Your task to perform on an android device: turn vacation reply on in the gmail app Image 0: 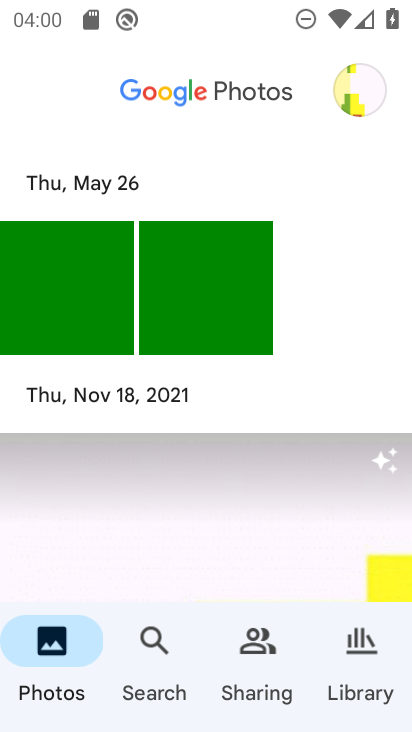
Step 0: press home button
Your task to perform on an android device: turn vacation reply on in the gmail app Image 1: 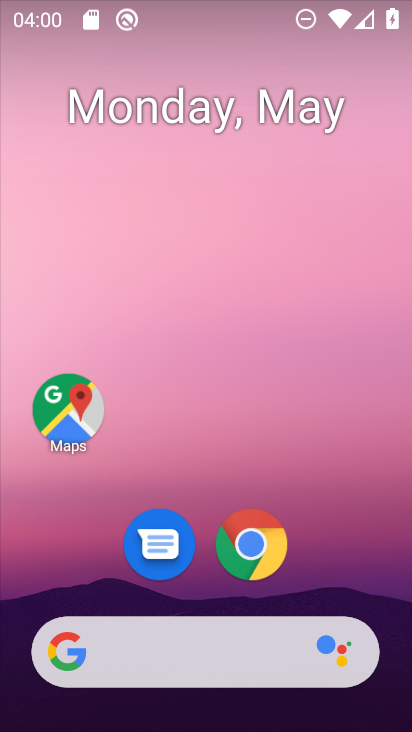
Step 1: drag from (355, 545) to (368, 234)
Your task to perform on an android device: turn vacation reply on in the gmail app Image 2: 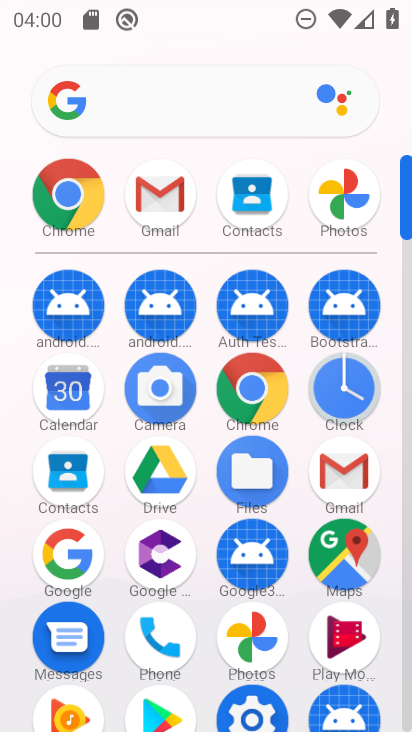
Step 2: click (349, 486)
Your task to perform on an android device: turn vacation reply on in the gmail app Image 3: 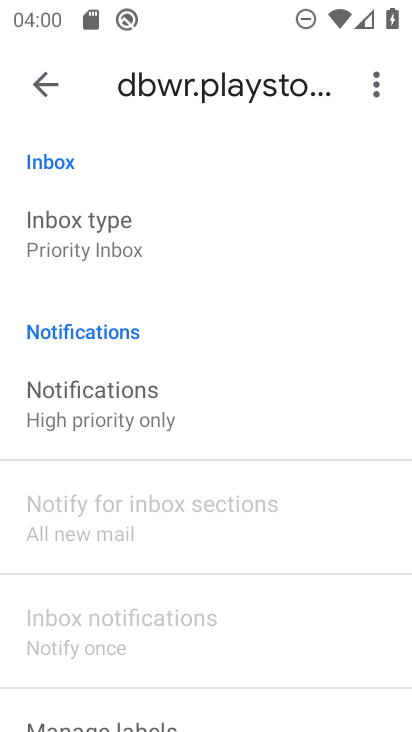
Step 3: drag from (322, 558) to (335, 441)
Your task to perform on an android device: turn vacation reply on in the gmail app Image 4: 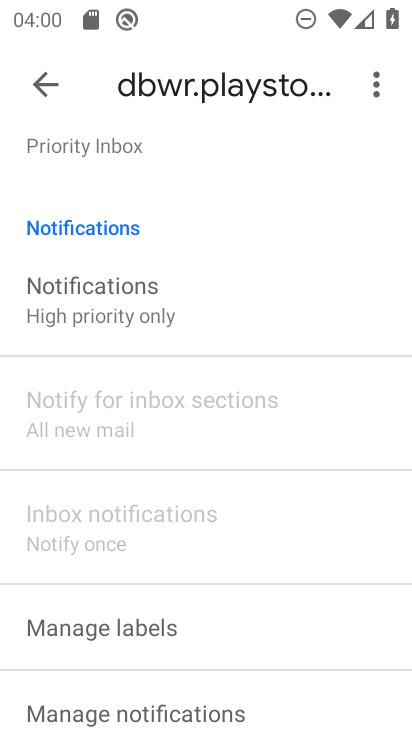
Step 4: drag from (328, 592) to (334, 452)
Your task to perform on an android device: turn vacation reply on in the gmail app Image 5: 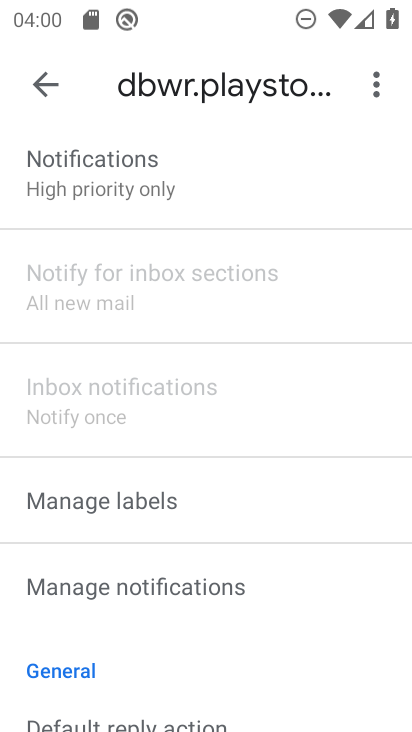
Step 5: drag from (345, 640) to (358, 456)
Your task to perform on an android device: turn vacation reply on in the gmail app Image 6: 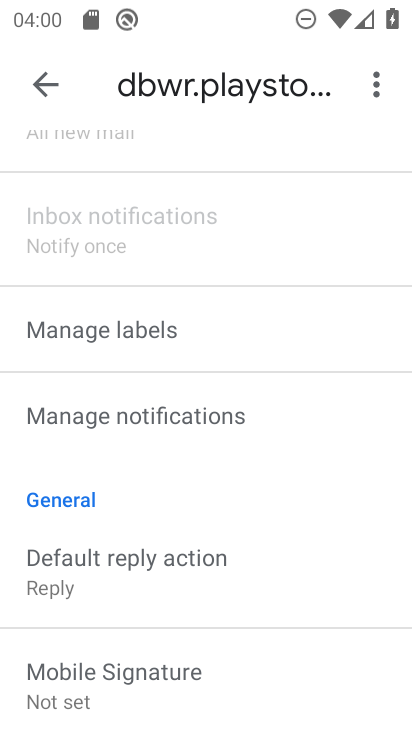
Step 6: drag from (329, 637) to (331, 482)
Your task to perform on an android device: turn vacation reply on in the gmail app Image 7: 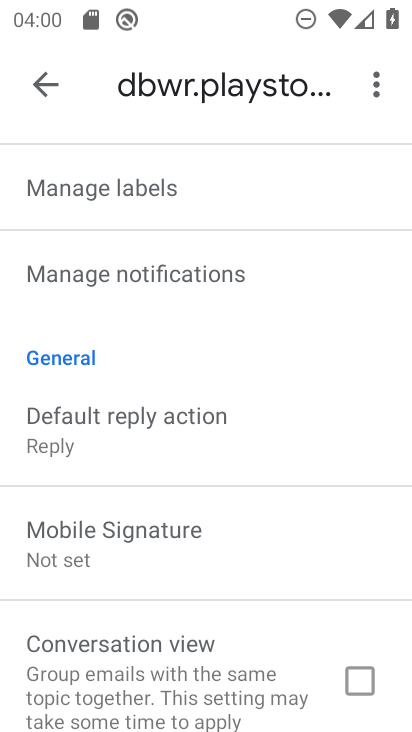
Step 7: drag from (291, 638) to (305, 493)
Your task to perform on an android device: turn vacation reply on in the gmail app Image 8: 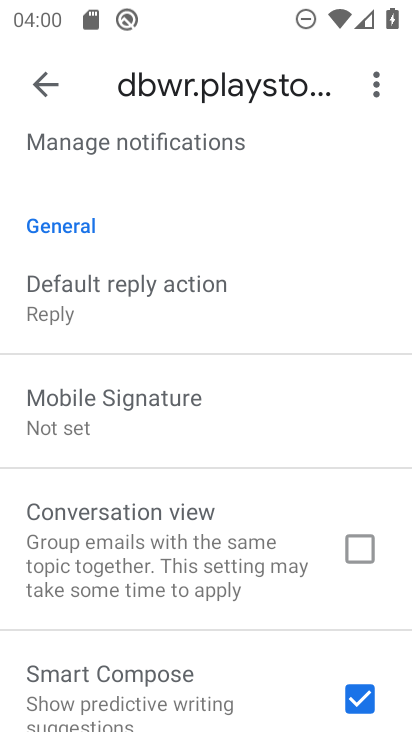
Step 8: drag from (280, 643) to (289, 553)
Your task to perform on an android device: turn vacation reply on in the gmail app Image 9: 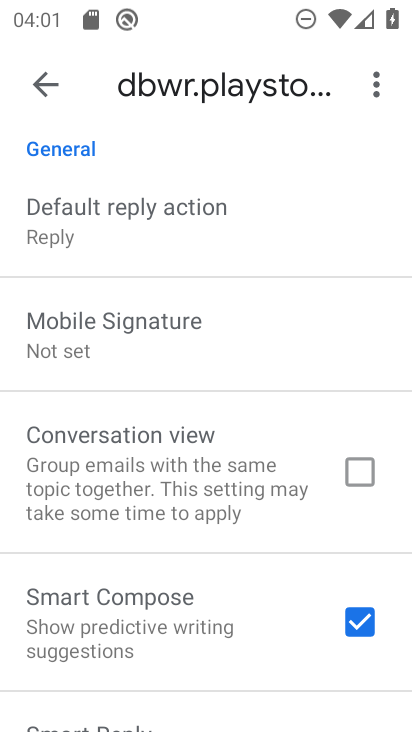
Step 9: drag from (282, 660) to (286, 526)
Your task to perform on an android device: turn vacation reply on in the gmail app Image 10: 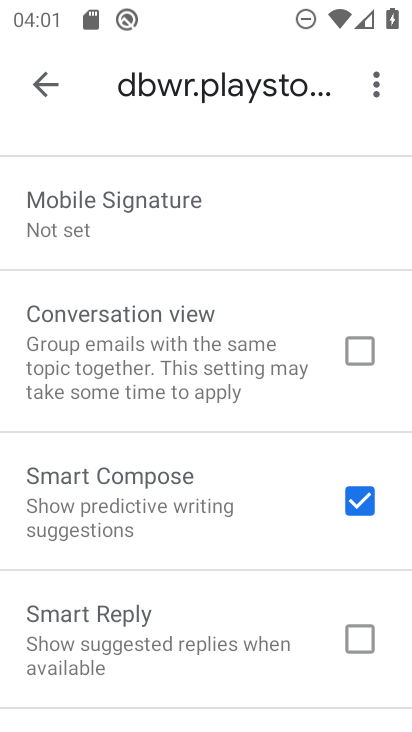
Step 10: drag from (259, 629) to (265, 486)
Your task to perform on an android device: turn vacation reply on in the gmail app Image 11: 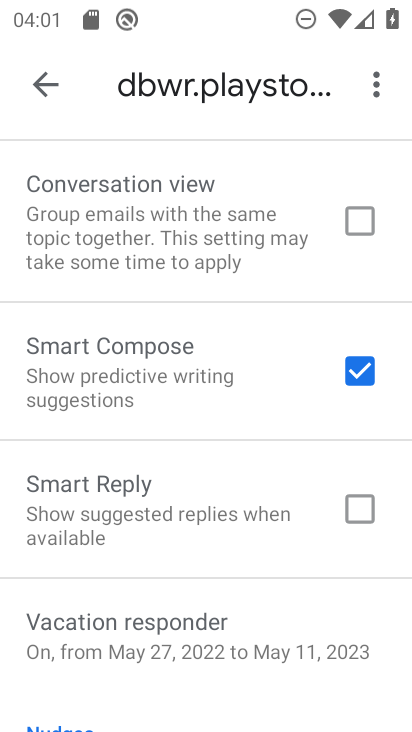
Step 11: click (283, 655)
Your task to perform on an android device: turn vacation reply on in the gmail app Image 12: 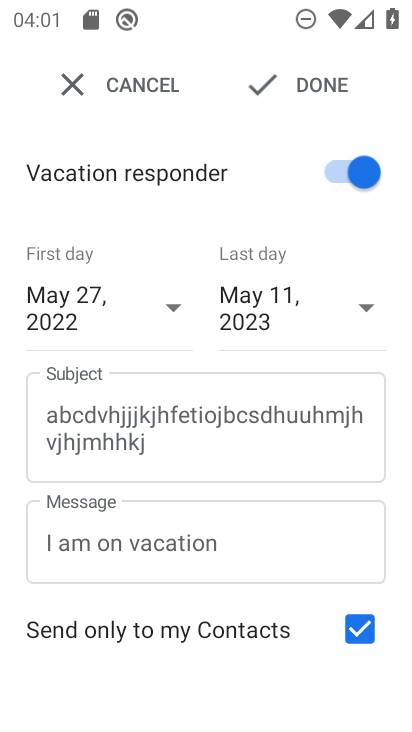
Step 12: task complete